Your task to perform on an android device: check google app version Image 0: 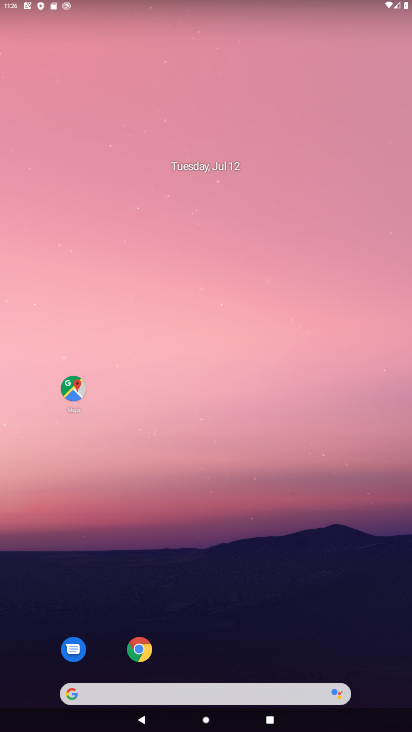
Step 0: press home button
Your task to perform on an android device: check google app version Image 1: 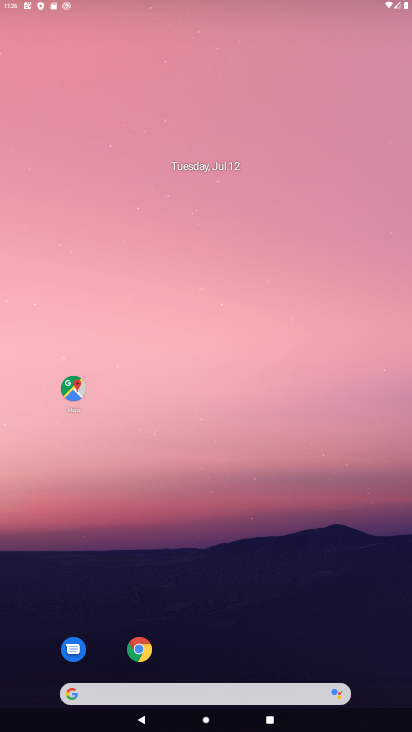
Step 1: drag from (271, 611) to (247, 0)
Your task to perform on an android device: check google app version Image 2: 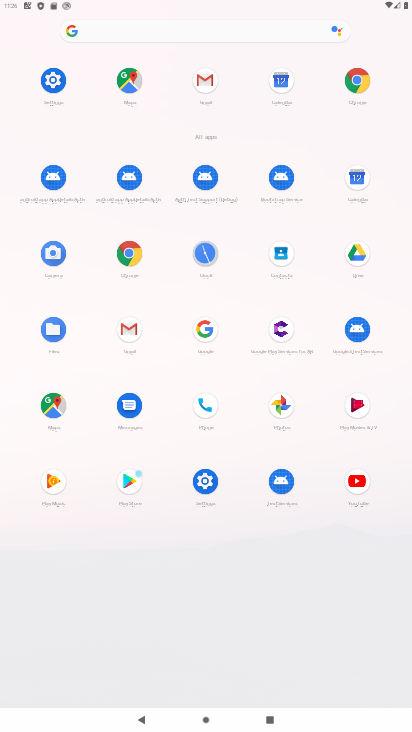
Step 2: click (196, 342)
Your task to perform on an android device: check google app version Image 3: 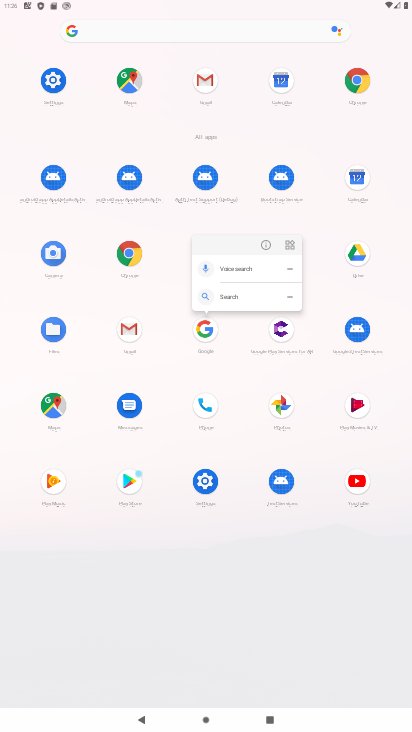
Step 3: click (270, 243)
Your task to perform on an android device: check google app version Image 4: 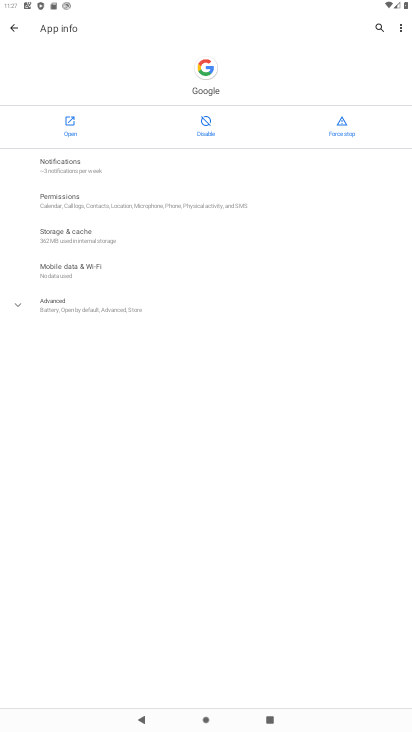
Step 4: click (59, 315)
Your task to perform on an android device: check google app version Image 5: 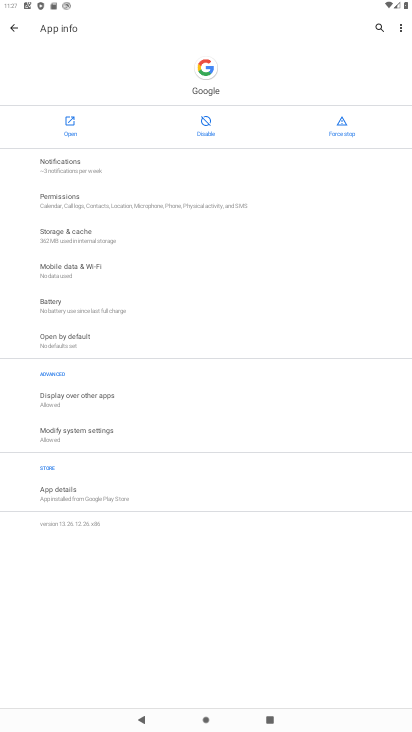
Step 5: task complete